Your task to perform on an android device: remove spam from my inbox in the gmail app Image 0: 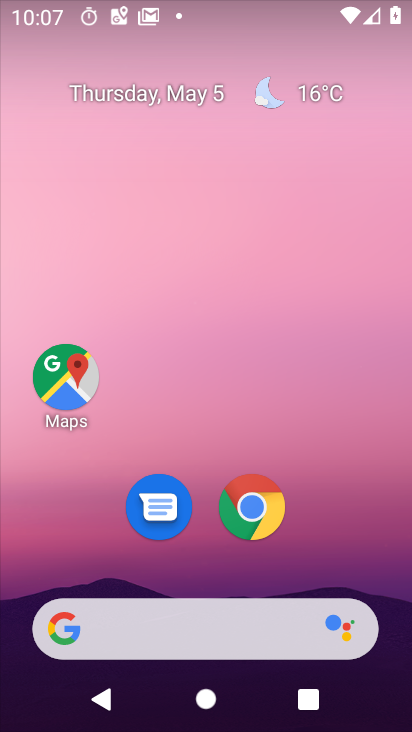
Step 0: drag from (155, 586) to (168, 300)
Your task to perform on an android device: remove spam from my inbox in the gmail app Image 1: 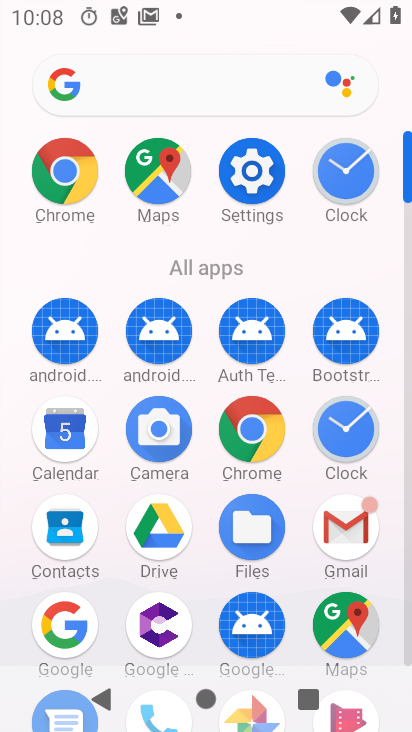
Step 1: click (341, 536)
Your task to perform on an android device: remove spam from my inbox in the gmail app Image 2: 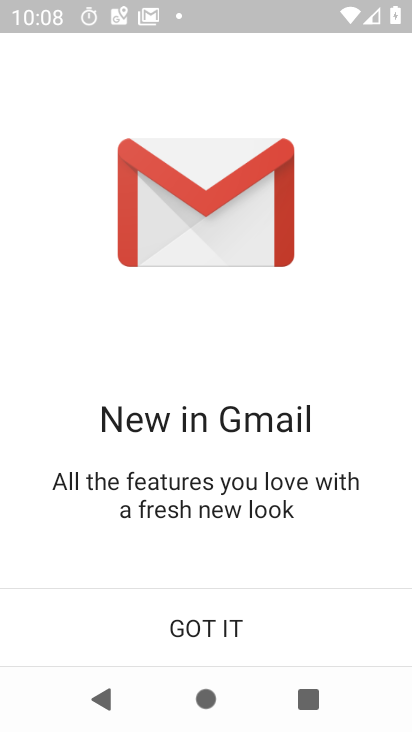
Step 2: click (182, 642)
Your task to perform on an android device: remove spam from my inbox in the gmail app Image 3: 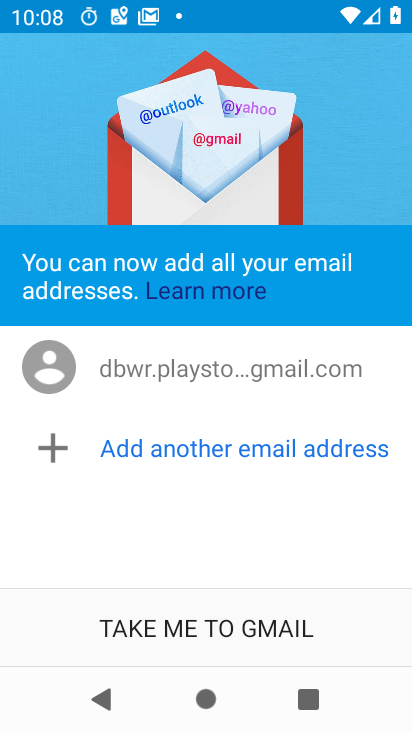
Step 3: click (190, 624)
Your task to perform on an android device: remove spam from my inbox in the gmail app Image 4: 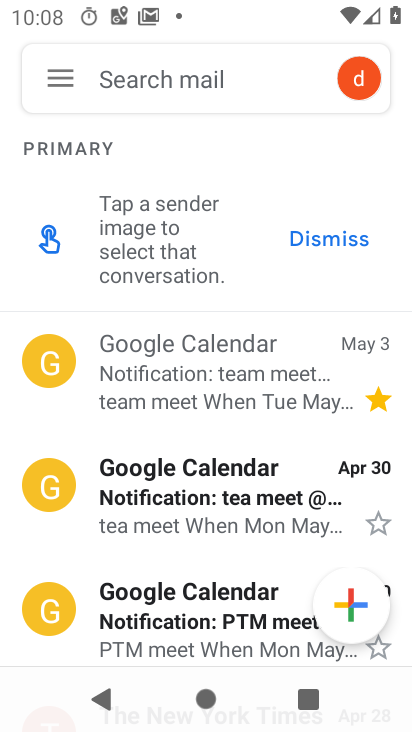
Step 4: click (64, 82)
Your task to perform on an android device: remove spam from my inbox in the gmail app Image 5: 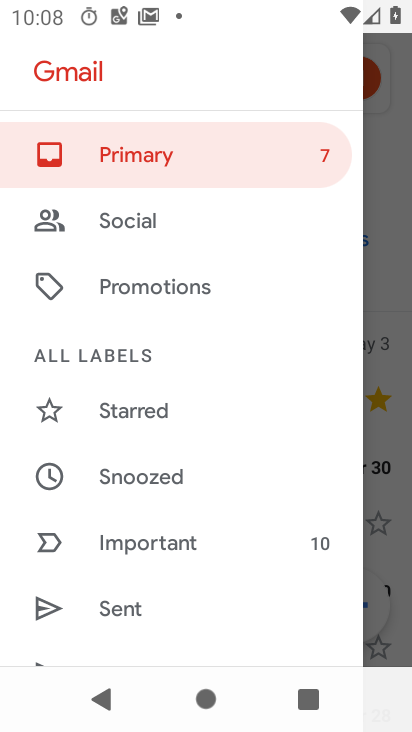
Step 5: drag from (160, 530) to (231, 220)
Your task to perform on an android device: remove spam from my inbox in the gmail app Image 6: 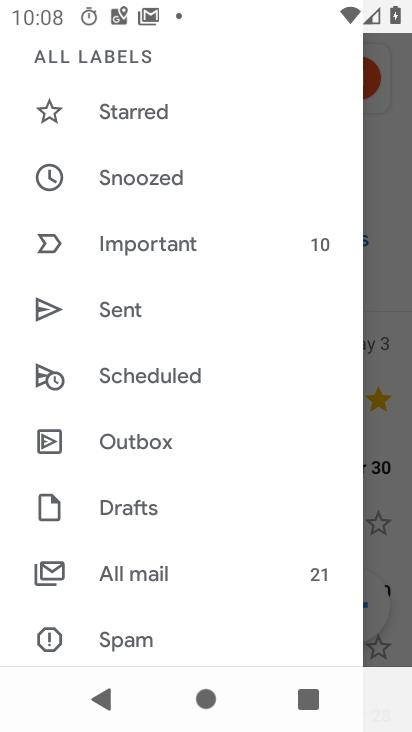
Step 6: click (139, 641)
Your task to perform on an android device: remove spam from my inbox in the gmail app Image 7: 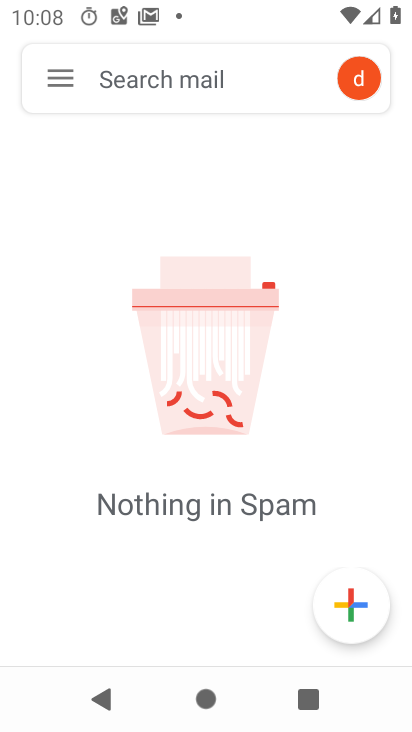
Step 7: task complete